Your task to perform on an android device: Open Google Chrome and open the bookmarks view Image 0: 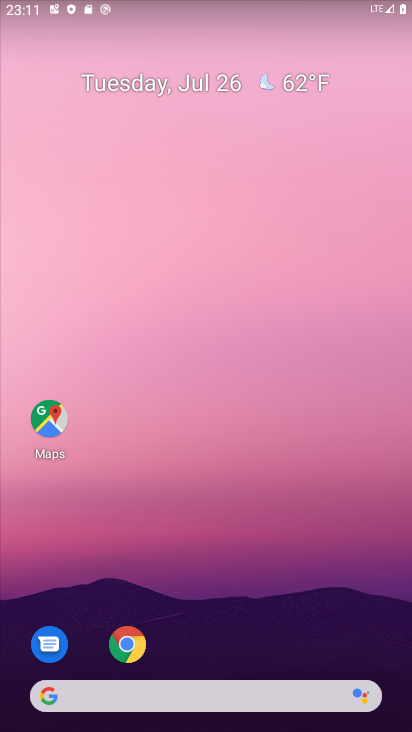
Step 0: click (135, 651)
Your task to perform on an android device: Open Google Chrome and open the bookmarks view Image 1: 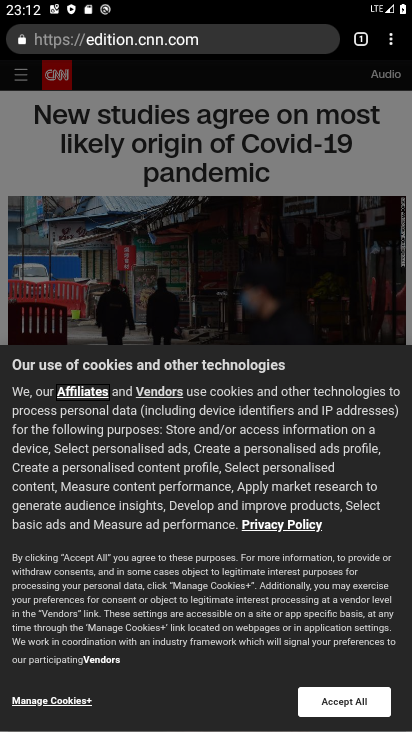
Step 1: task complete